Your task to perform on an android device: Search for sushi restaurants on Maps Image 0: 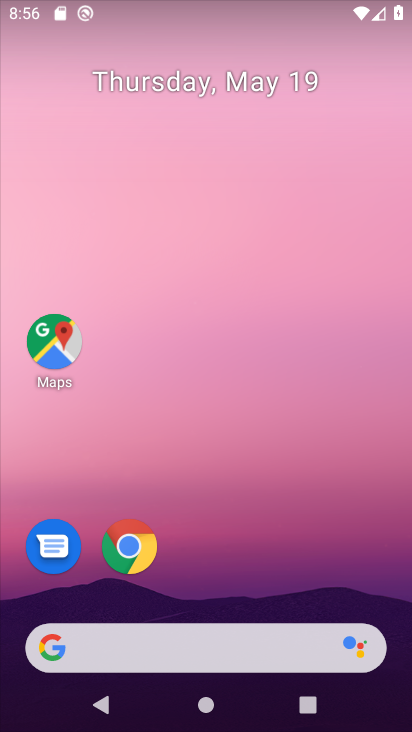
Step 0: drag from (307, 708) to (225, 238)
Your task to perform on an android device: Search for sushi restaurants on Maps Image 1: 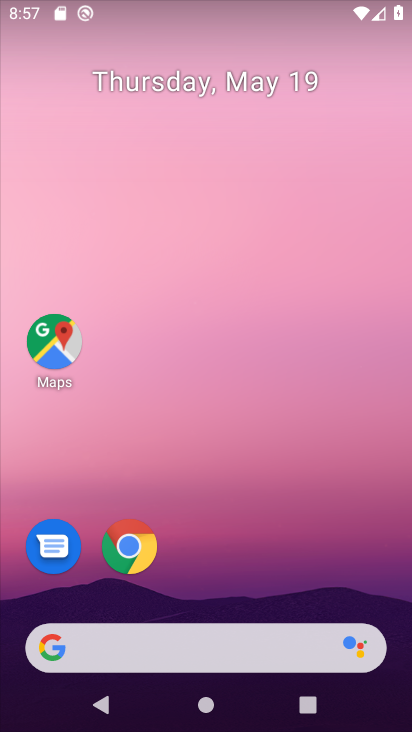
Step 1: drag from (260, 688) to (110, 97)
Your task to perform on an android device: Search for sushi restaurants on Maps Image 2: 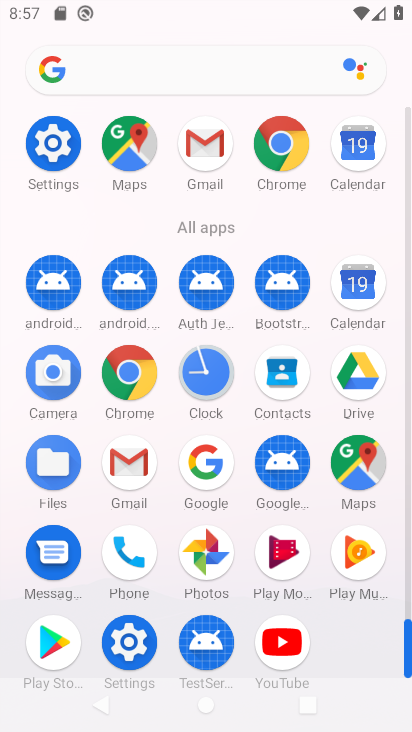
Step 2: click (350, 479)
Your task to perform on an android device: Search for sushi restaurants on Maps Image 3: 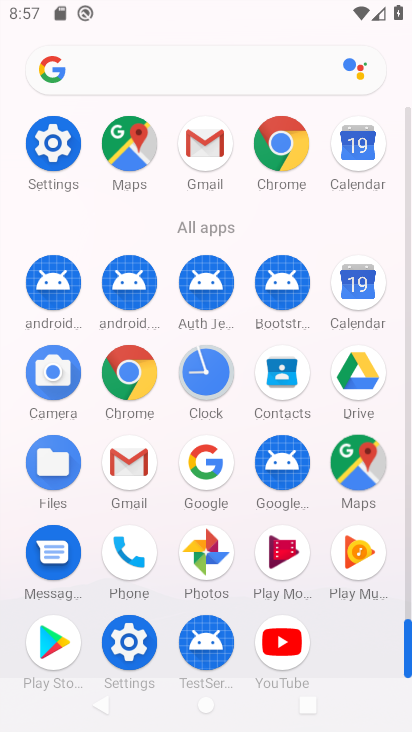
Step 3: click (352, 477)
Your task to perform on an android device: Search for sushi restaurants on Maps Image 4: 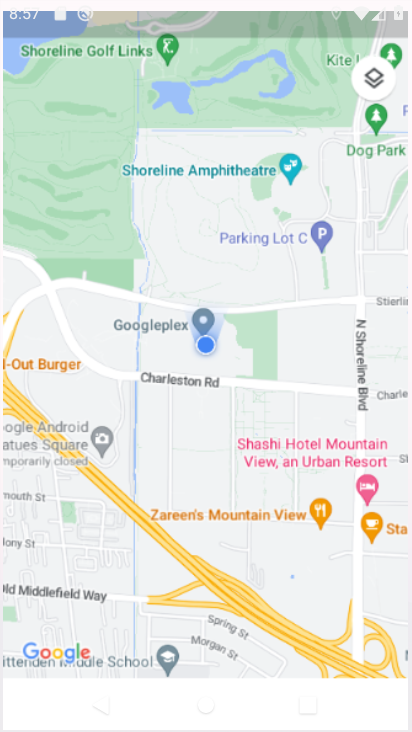
Step 4: click (354, 476)
Your task to perform on an android device: Search for sushi restaurants on Maps Image 5: 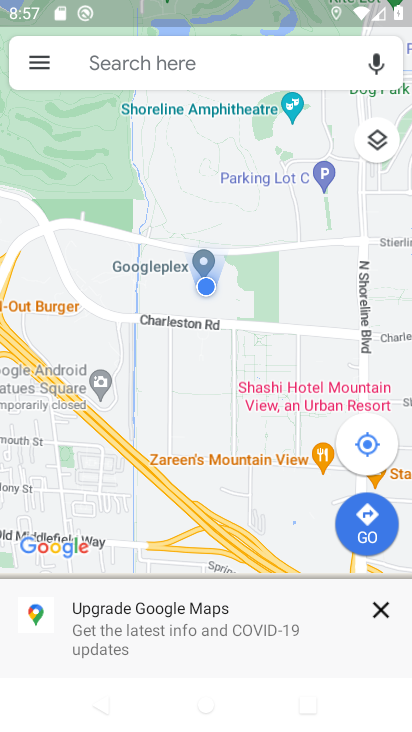
Step 5: click (101, 55)
Your task to perform on an android device: Search for sushi restaurants on Maps Image 6: 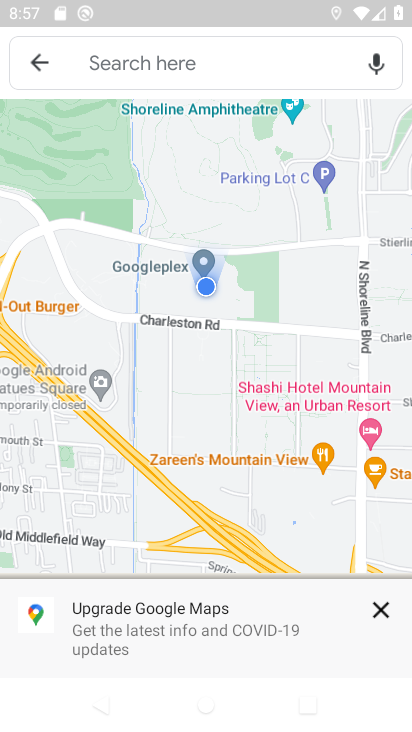
Step 6: click (88, 59)
Your task to perform on an android device: Search for sushi restaurants on Maps Image 7: 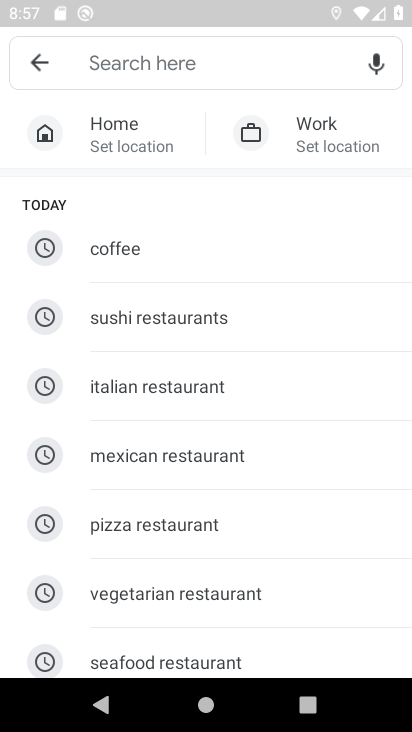
Step 7: click (121, 336)
Your task to perform on an android device: Search for sushi restaurants on Maps Image 8: 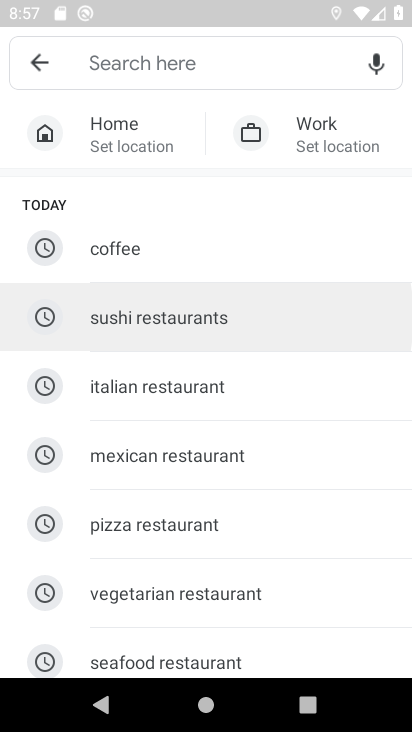
Step 8: click (125, 320)
Your task to perform on an android device: Search for sushi restaurants on Maps Image 9: 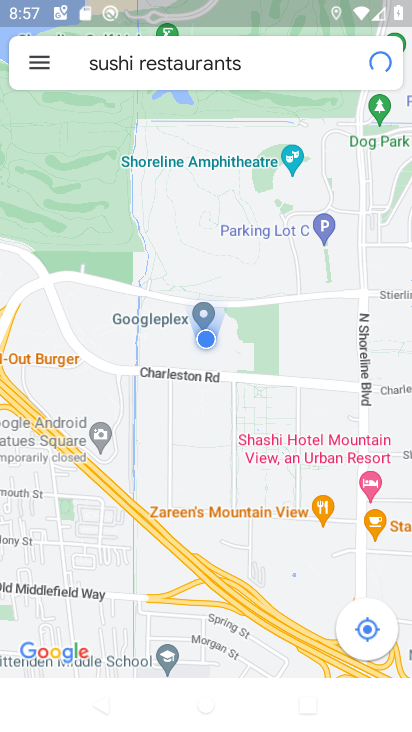
Step 9: task complete